Your task to perform on an android device: change your default location settings in chrome Image 0: 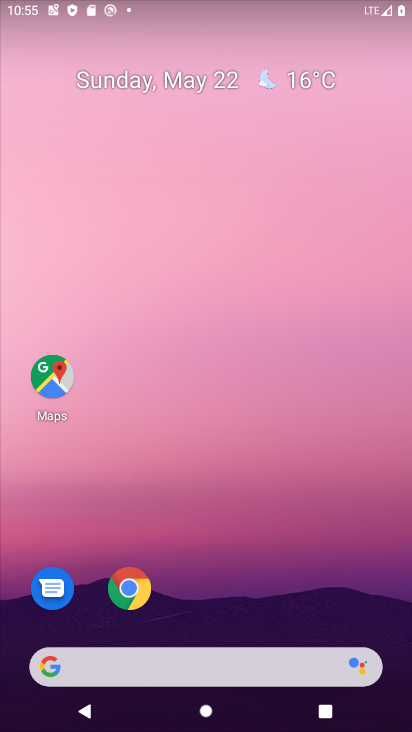
Step 0: click (136, 599)
Your task to perform on an android device: change your default location settings in chrome Image 1: 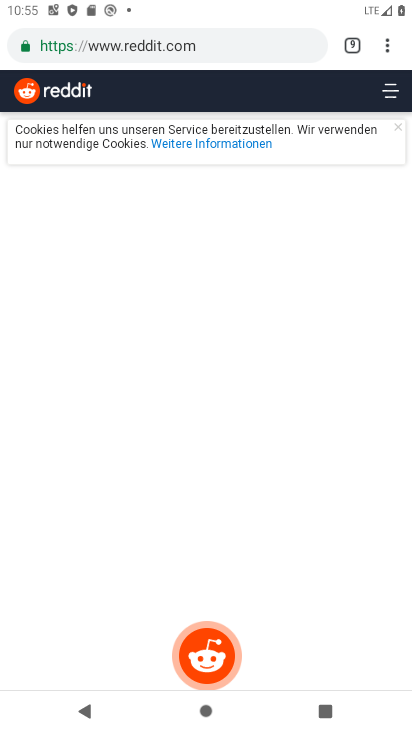
Step 1: click (381, 45)
Your task to perform on an android device: change your default location settings in chrome Image 2: 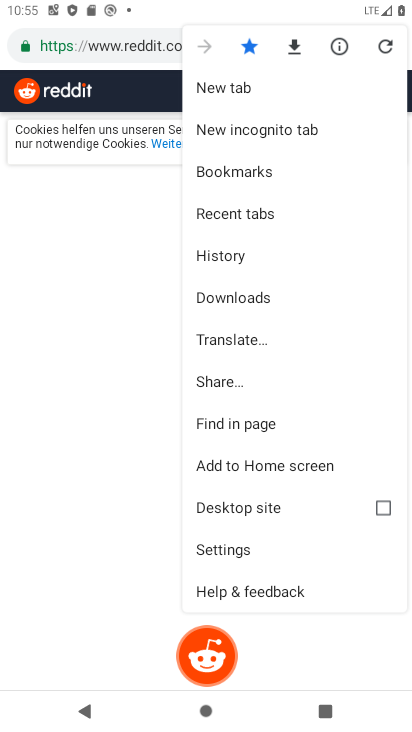
Step 2: click (246, 553)
Your task to perform on an android device: change your default location settings in chrome Image 3: 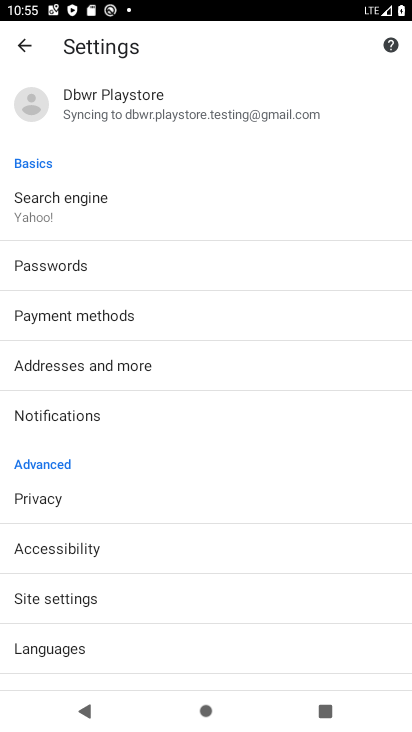
Step 3: click (83, 598)
Your task to perform on an android device: change your default location settings in chrome Image 4: 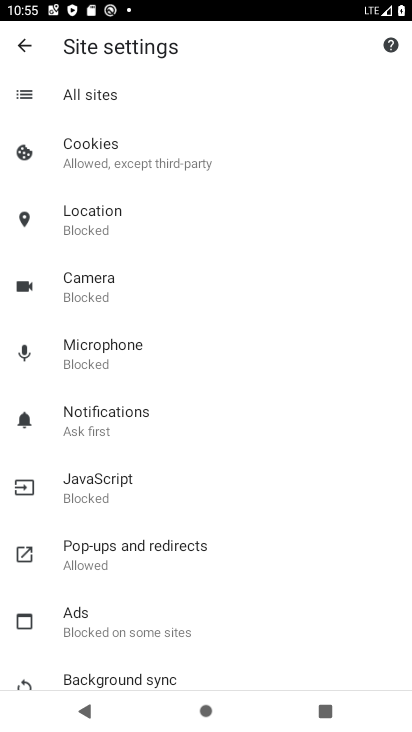
Step 4: click (163, 233)
Your task to perform on an android device: change your default location settings in chrome Image 5: 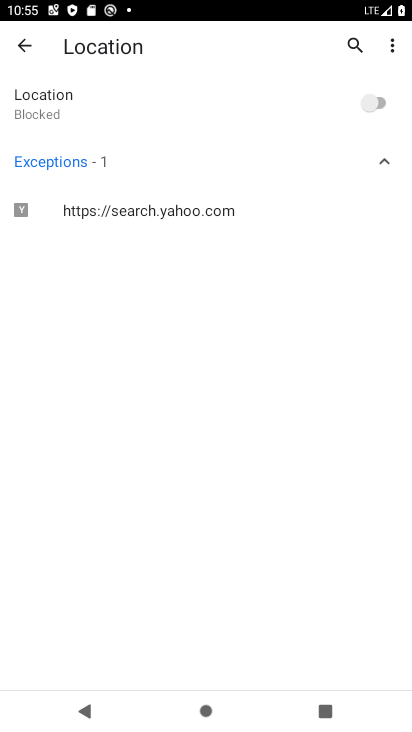
Step 5: task complete